Your task to perform on an android device: turn on javascript in the chrome app Image 0: 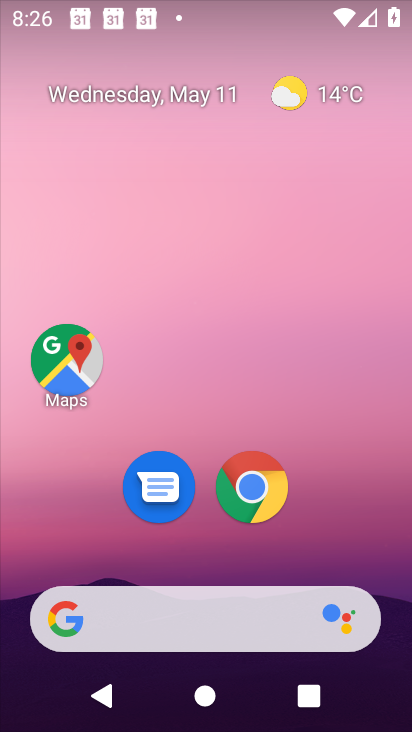
Step 0: click (248, 495)
Your task to perform on an android device: turn on javascript in the chrome app Image 1: 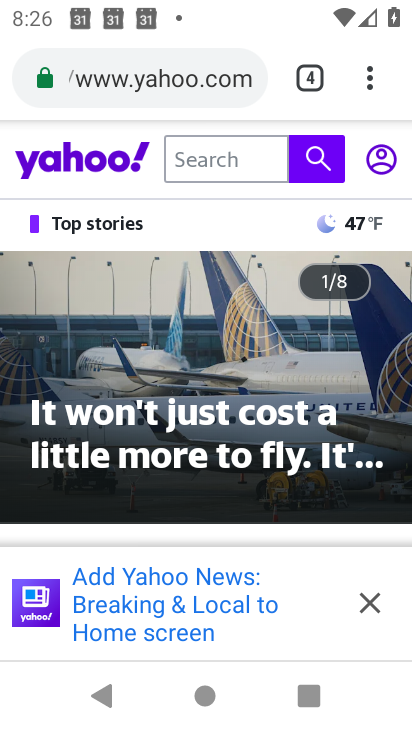
Step 1: click (371, 86)
Your task to perform on an android device: turn on javascript in the chrome app Image 2: 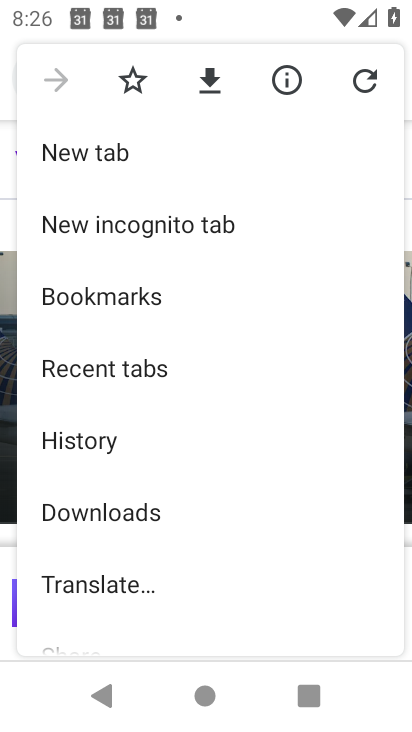
Step 2: drag from (109, 599) to (112, 198)
Your task to perform on an android device: turn on javascript in the chrome app Image 3: 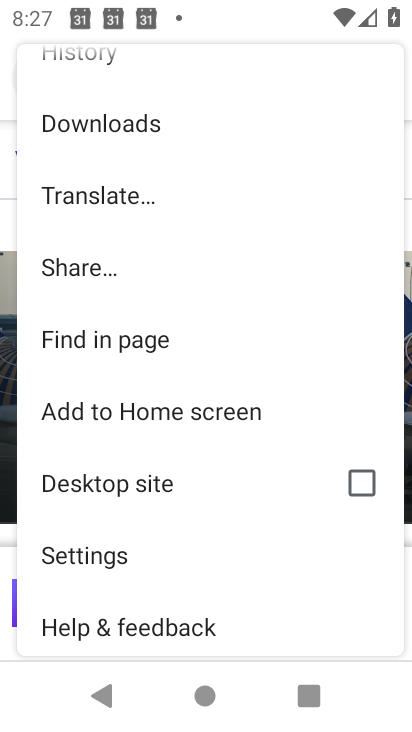
Step 3: drag from (153, 595) to (169, 239)
Your task to perform on an android device: turn on javascript in the chrome app Image 4: 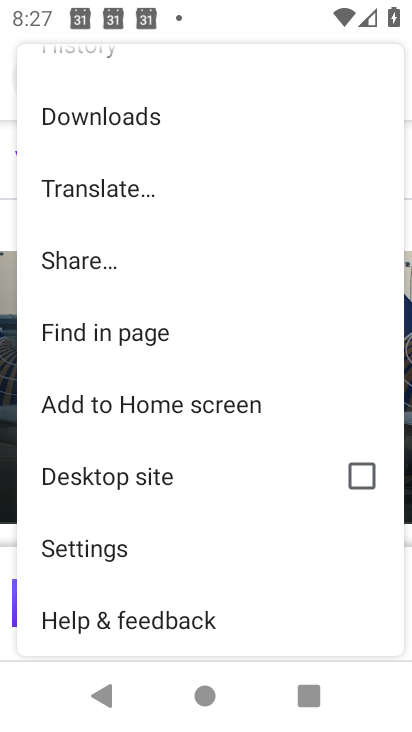
Step 4: click (93, 547)
Your task to perform on an android device: turn on javascript in the chrome app Image 5: 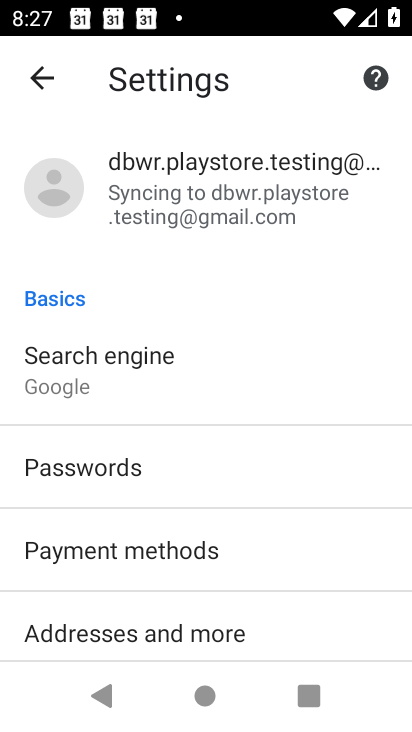
Step 5: drag from (95, 619) to (93, 349)
Your task to perform on an android device: turn on javascript in the chrome app Image 6: 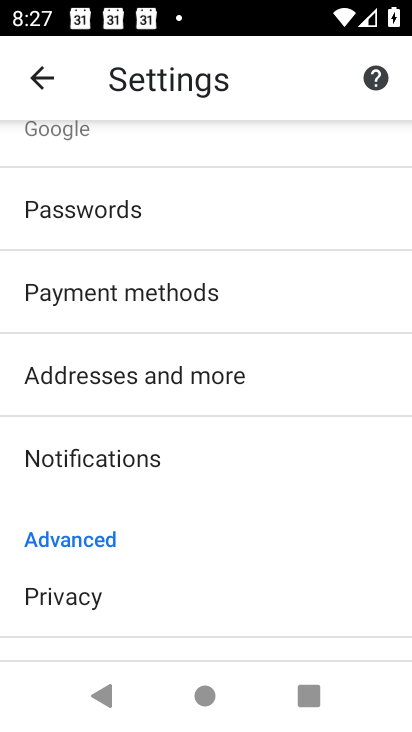
Step 6: drag from (140, 612) to (164, 259)
Your task to perform on an android device: turn on javascript in the chrome app Image 7: 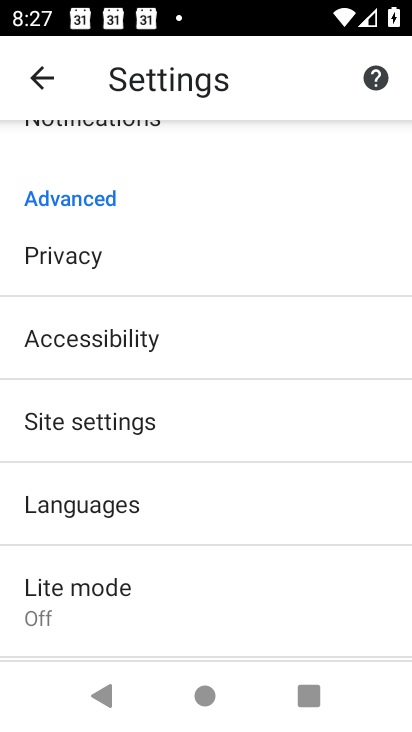
Step 7: click (127, 424)
Your task to perform on an android device: turn on javascript in the chrome app Image 8: 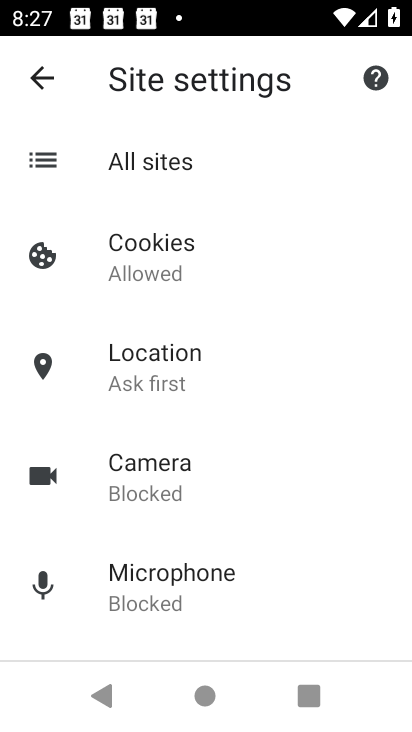
Step 8: drag from (114, 606) to (161, 135)
Your task to perform on an android device: turn on javascript in the chrome app Image 9: 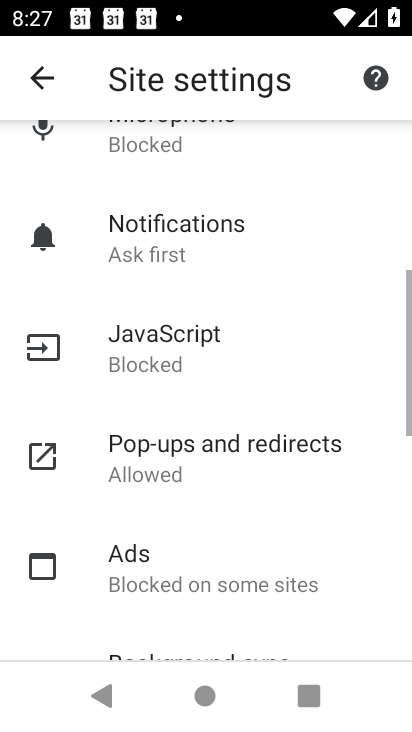
Step 9: click (154, 332)
Your task to perform on an android device: turn on javascript in the chrome app Image 10: 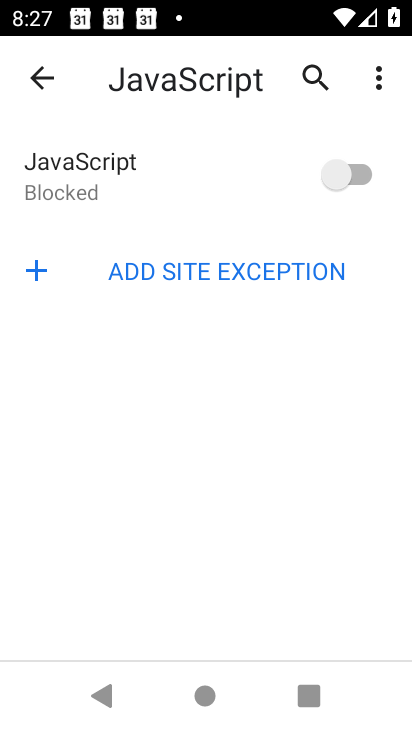
Step 10: click (352, 178)
Your task to perform on an android device: turn on javascript in the chrome app Image 11: 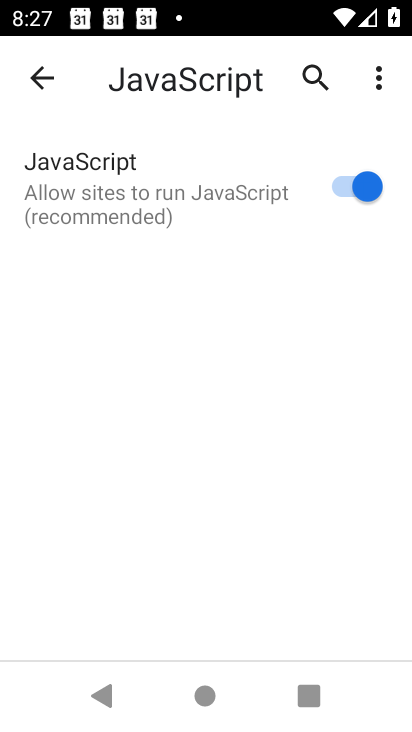
Step 11: task complete